Your task to perform on an android device: Go to ESPN.com Image 0: 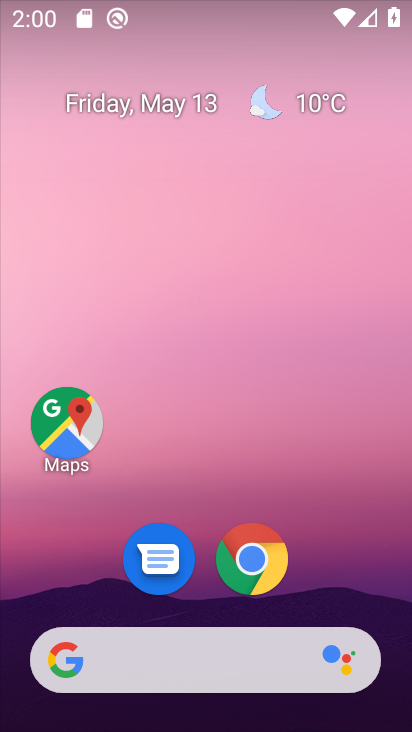
Step 0: click (247, 557)
Your task to perform on an android device: Go to ESPN.com Image 1: 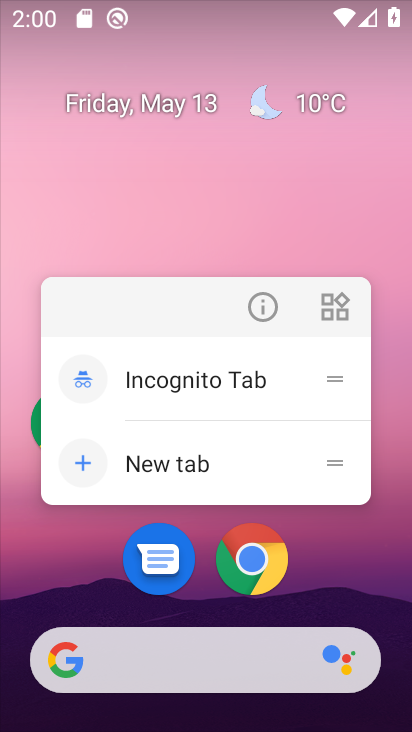
Step 1: click (261, 546)
Your task to perform on an android device: Go to ESPN.com Image 2: 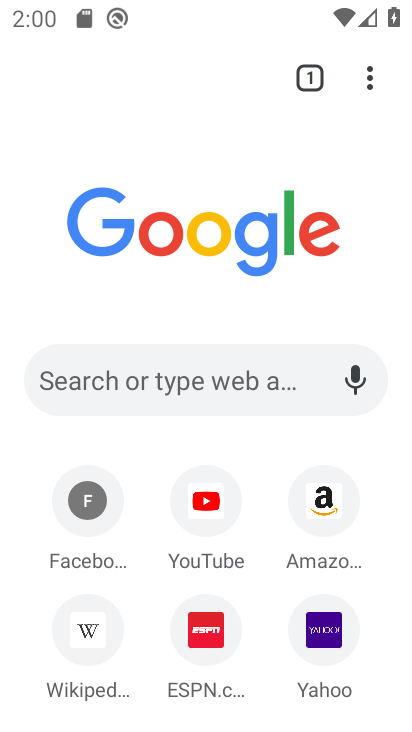
Step 2: click (142, 374)
Your task to perform on an android device: Go to ESPN.com Image 3: 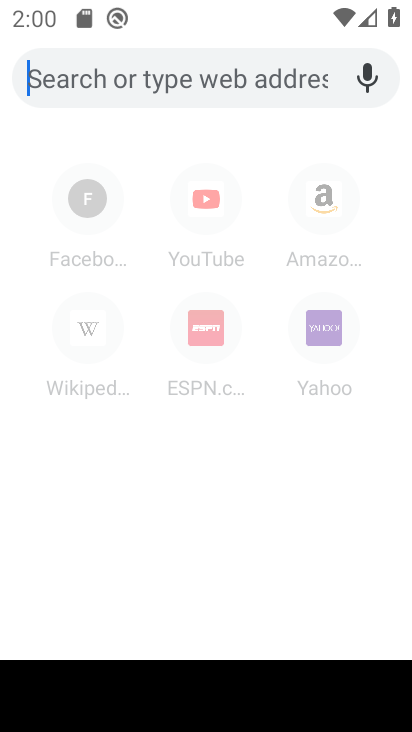
Step 3: type "ESPN.com"
Your task to perform on an android device: Go to ESPN.com Image 4: 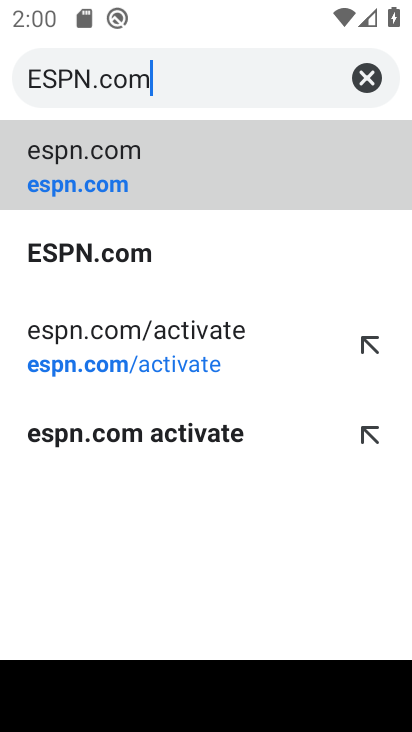
Step 4: click (71, 250)
Your task to perform on an android device: Go to ESPN.com Image 5: 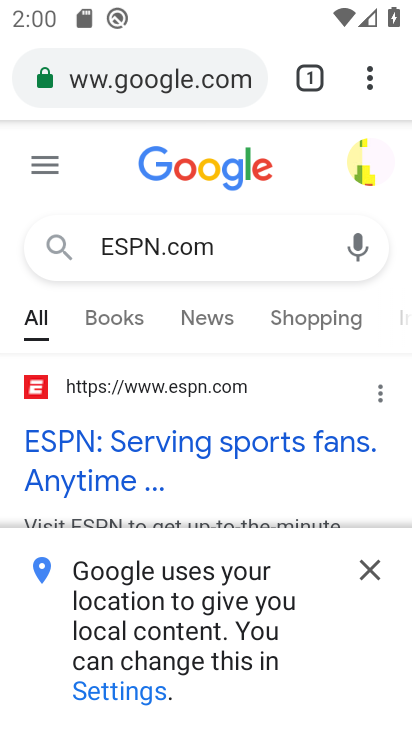
Step 5: task complete